Your task to perform on an android device: turn off wifi Image 0: 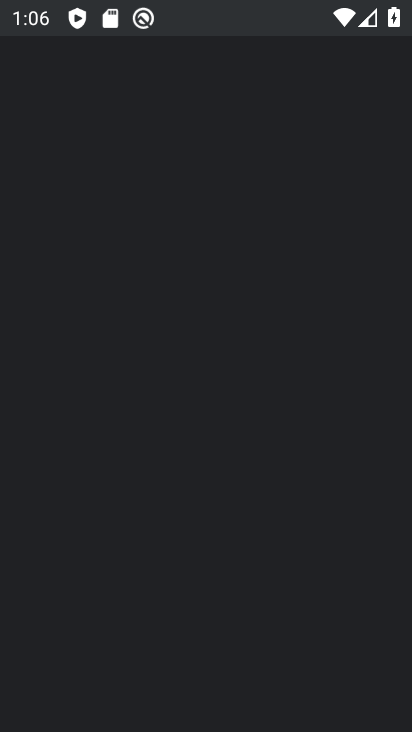
Step 0: click (252, 561)
Your task to perform on an android device: turn off wifi Image 1: 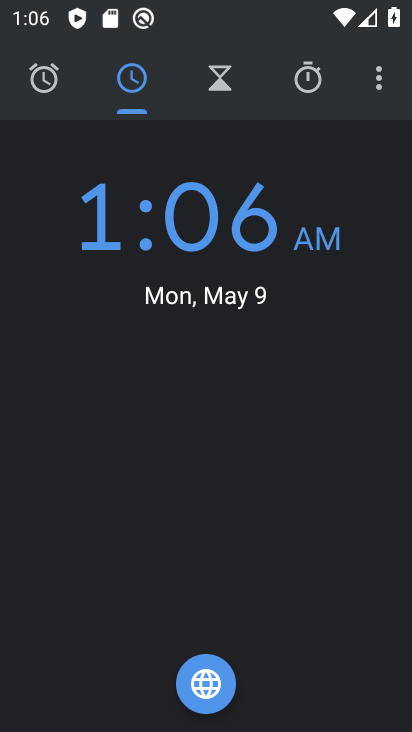
Step 1: press home button
Your task to perform on an android device: turn off wifi Image 2: 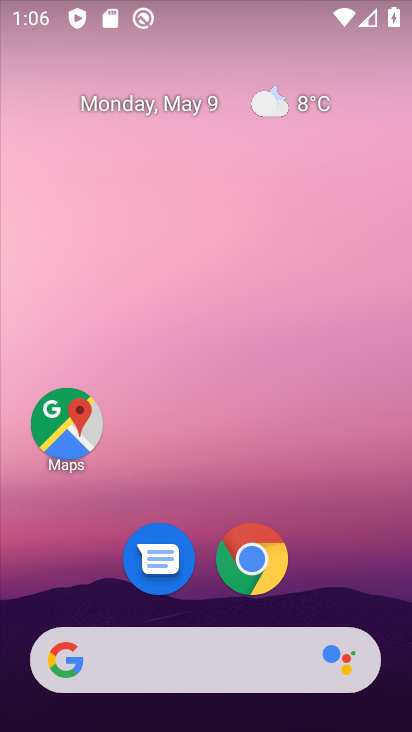
Step 2: drag from (301, 550) to (204, 21)
Your task to perform on an android device: turn off wifi Image 3: 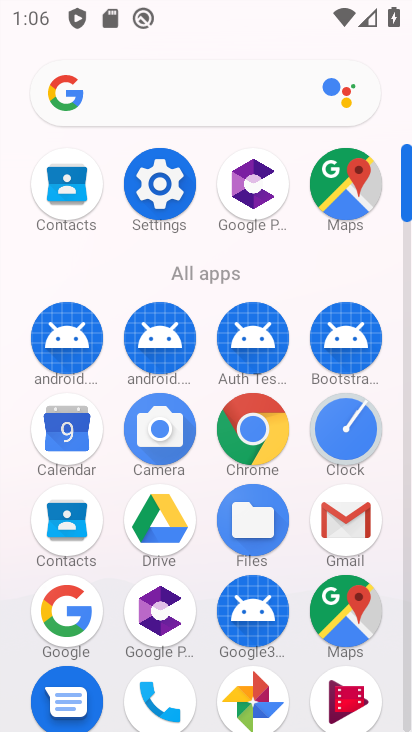
Step 3: click (147, 191)
Your task to perform on an android device: turn off wifi Image 4: 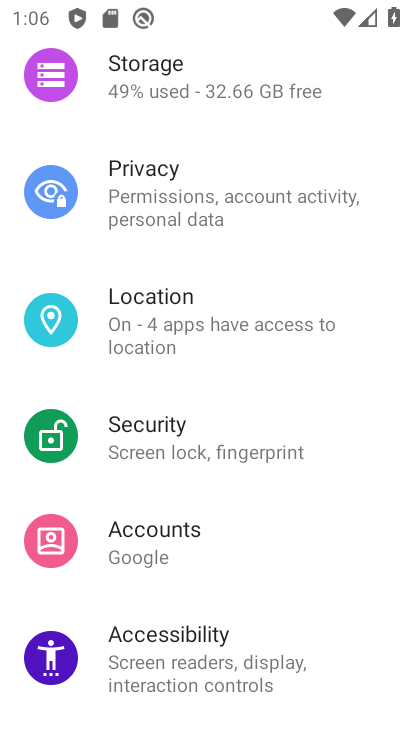
Step 4: drag from (220, 181) to (283, 525)
Your task to perform on an android device: turn off wifi Image 5: 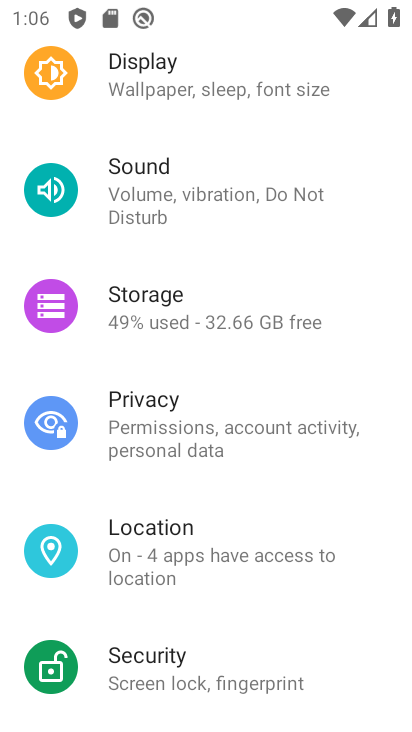
Step 5: drag from (219, 240) to (242, 720)
Your task to perform on an android device: turn off wifi Image 6: 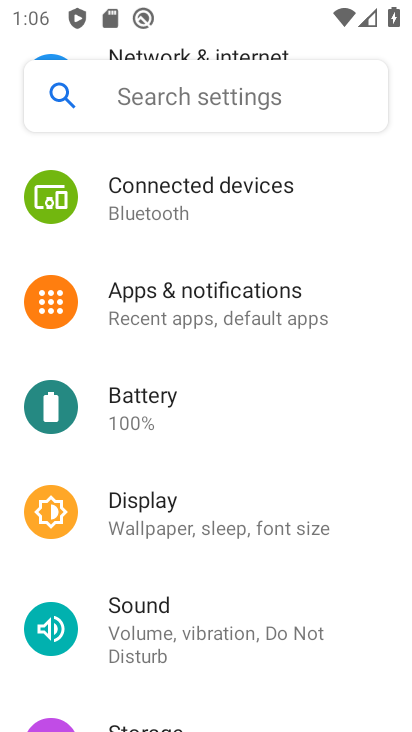
Step 6: drag from (210, 225) to (255, 708)
Your task to perform on an android device: turn off wifi Image 7: 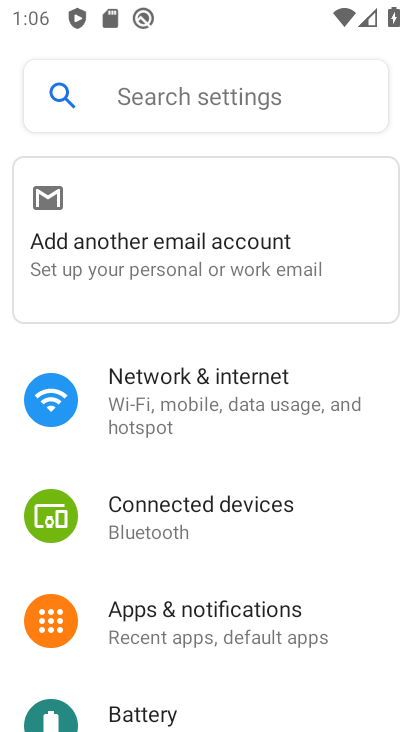
Step 7: click (190, 383)
Your task to perform on an android device: turn off wifi Image 8: 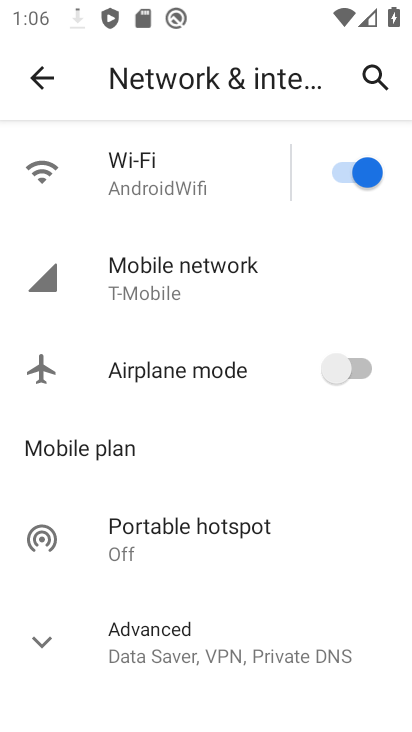
Step 8: click (369, 174)
Your task to perform on an android device: turn off wifi Image 9: 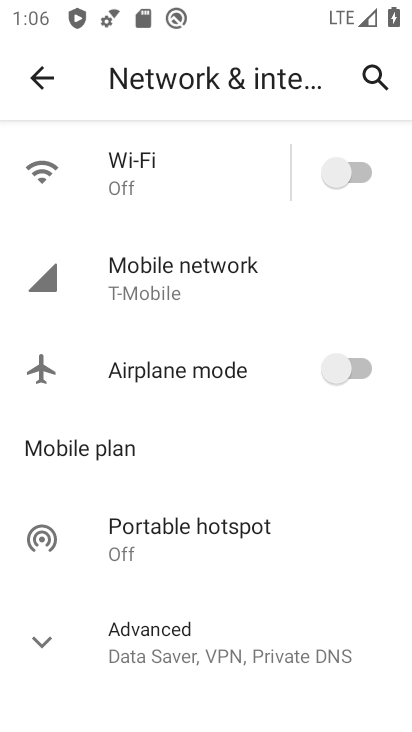
Step 9: task complete